Your task to perform on an android device: What's on my calendar tomorrow? Image 0: 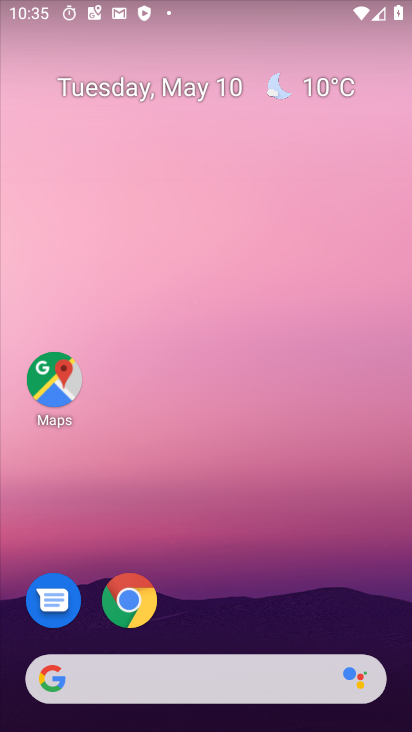
Step 0: drag from (244, 579) to (211, 8)
Your task to perform on an android device: What's on my calendar tomorrow? Image 1: 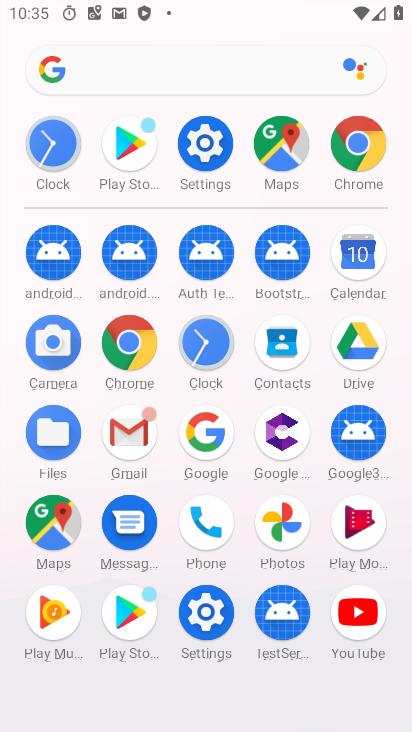
Step 1: drag from (9, 566) to (13, 247)
Your task to perform on an android device: What's on my calendar tomorrow? Image 2: 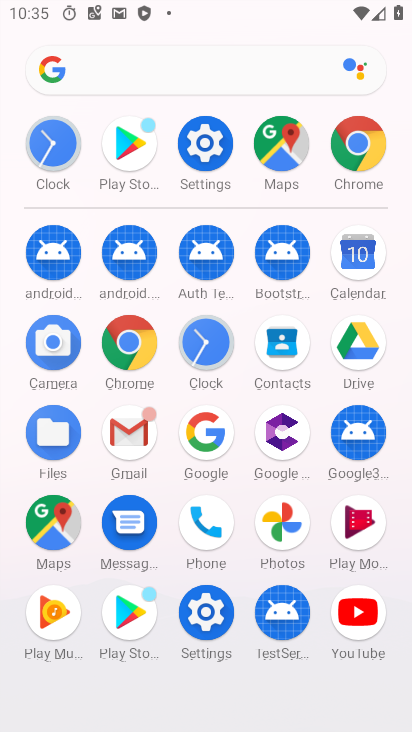
Step 2: click (358, 246)
Your task to perform on an android device: What's on my calendar tomorrow? Image 3: 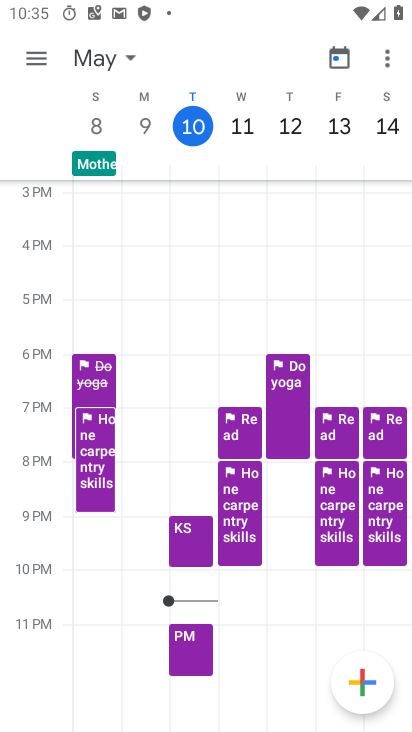
Step 3: click (242, 128)
Your task to perform on an android device: What's on my calendar tomorrow? Image 4: 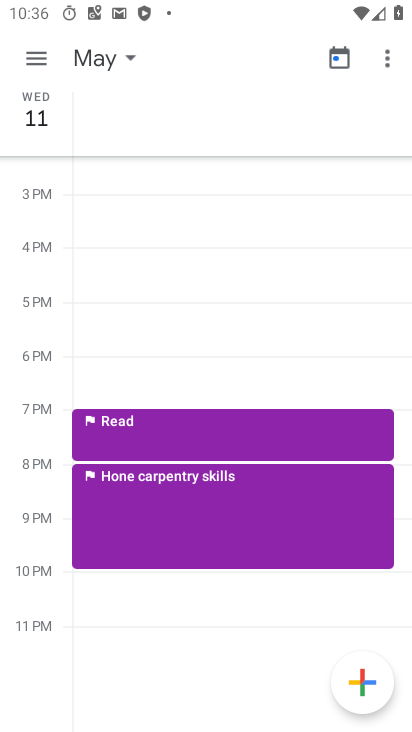
Step 4: task complete